Your task to perform on an android device: Set the phone to "Do not disturb". Image 0: 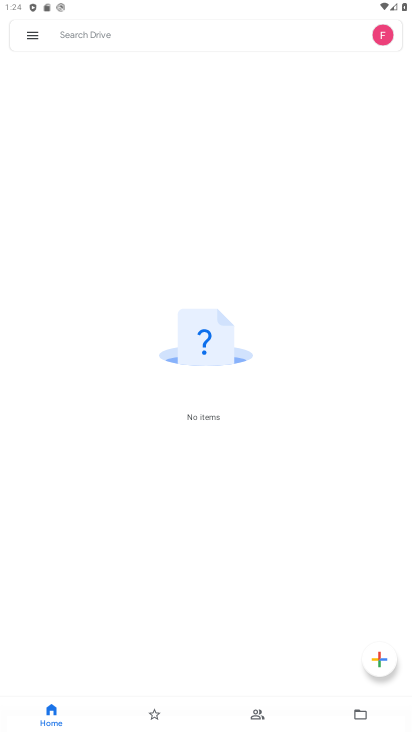
Step 0: press home button
Your task to perform on an android device: Set the phone to "Do not disturb". Image 1: 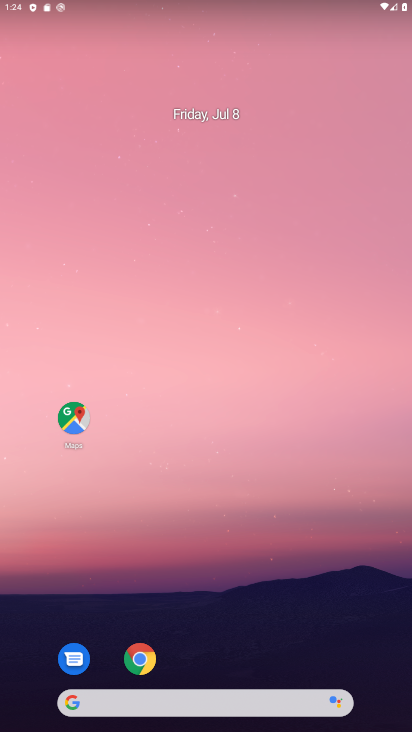
Step 1: drag from (223, 654) to (195, 210)
Your task to perform on an android device: Set the phone to "Do not disturb". Image 2: 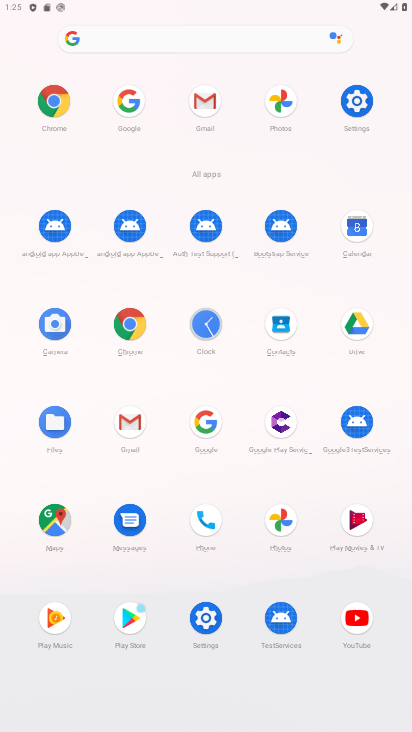
Step 2: click (357, 101)
Your task to perform on an android device: Set the phone to "Do not disturb". Image 3: 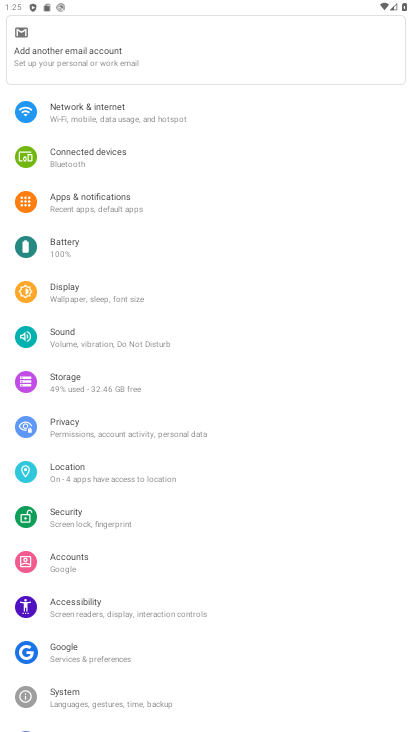
Step 3: click (109, 345)
Your task to perform on an android device: Set the phone to "Do not disturb". Image 4: 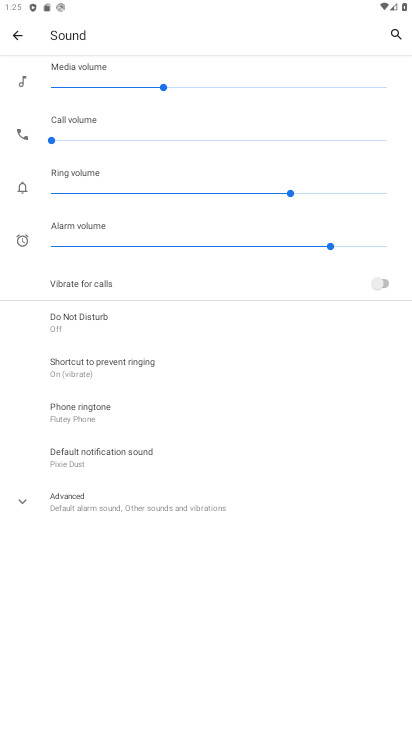
Step 4: click (87, 314)
Your task to perform on an android device: Set the phone to "Do not disturb". Image 5: 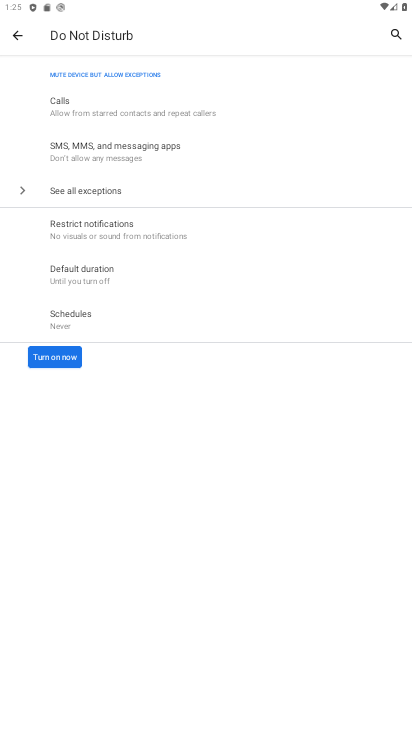
Step 5: click (61, 356)
Your task to perform on an android device: Set the phone to "Do not disturb". Image 6: 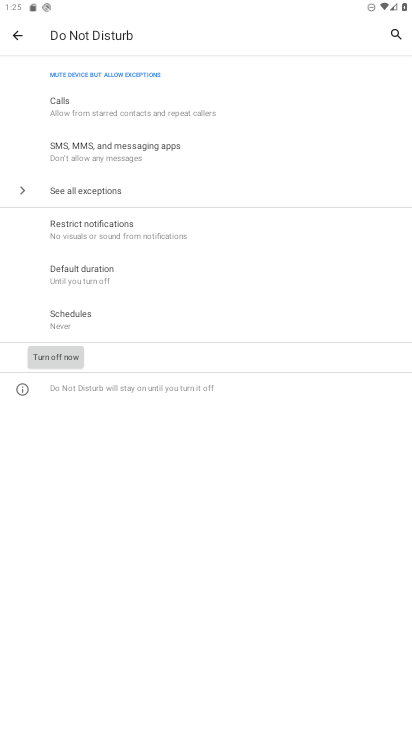
Step 6: task complete